Your task to perform on an android device: Go to Maps Image 0: 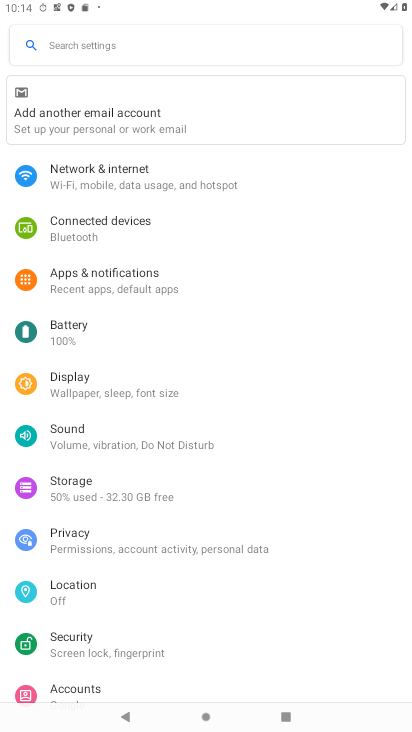
Step 0: press home button
Your task to perform on an android device: Go to Maps Image 1: 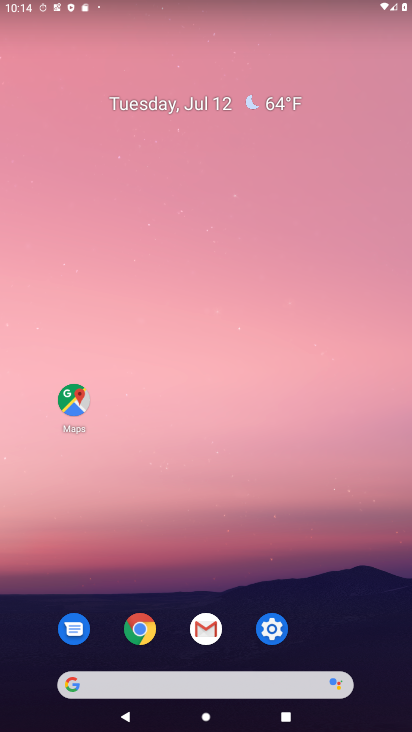
Step 1: click (69, 410)
Your task to perform on an android device: Go to Maps Image 2: 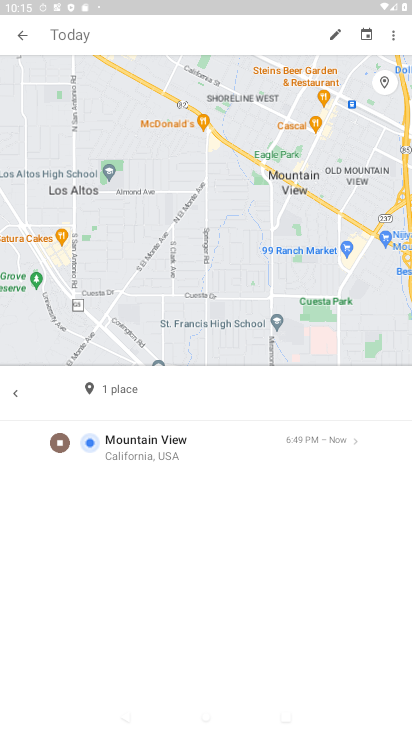
Step 2: task complete